Your task to perform on an android device: turn on the 24-hour format for clock Image 0: 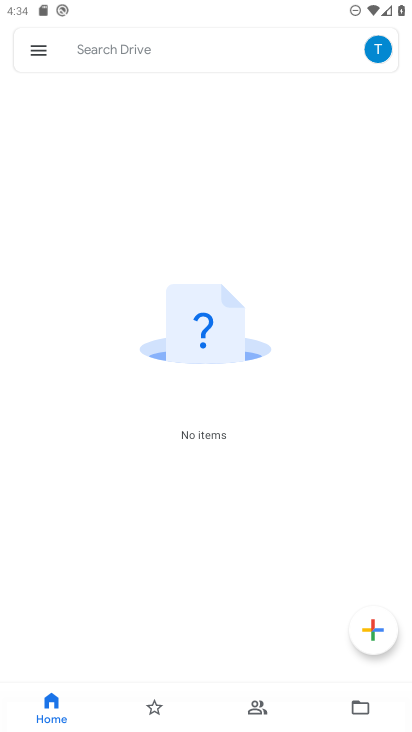
Step 0: press home button
Your task to perform on an android device: turn on the 24-hour format for clock Image 1: 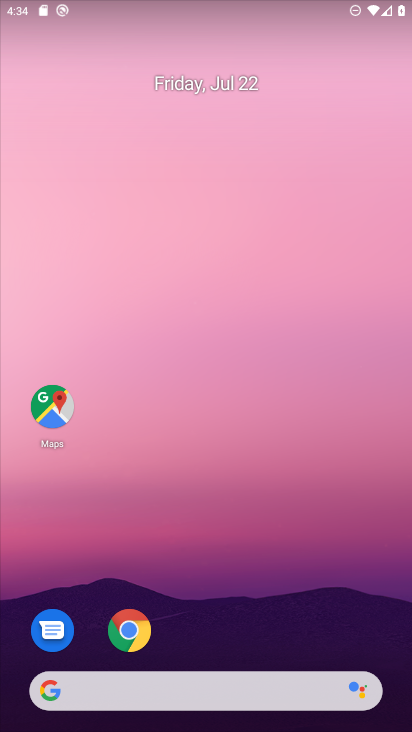
Step 1: drag from (229, 621) to (274, 109)
Your task to perform on an android device: turn on the 24-hour format for clock Image 2: 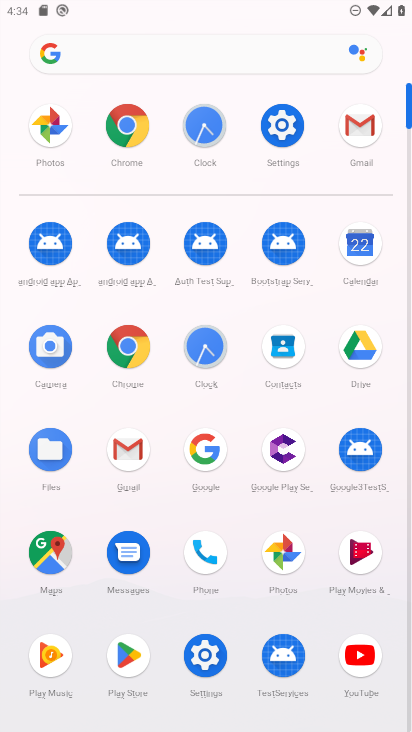
Step 2: click (207, 649)
Your task to perform on an android device: turn on the 24-hour format for clock Image 3: 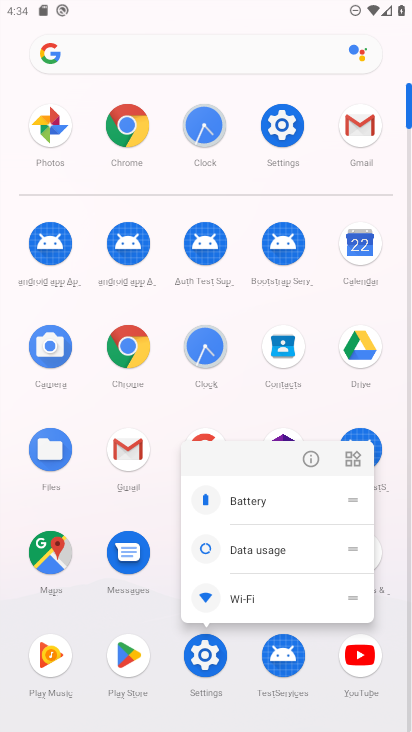
Step 3: click (211, 655)
Your task to perform on an android device: turn on the 24-hour format for clock Image 4: 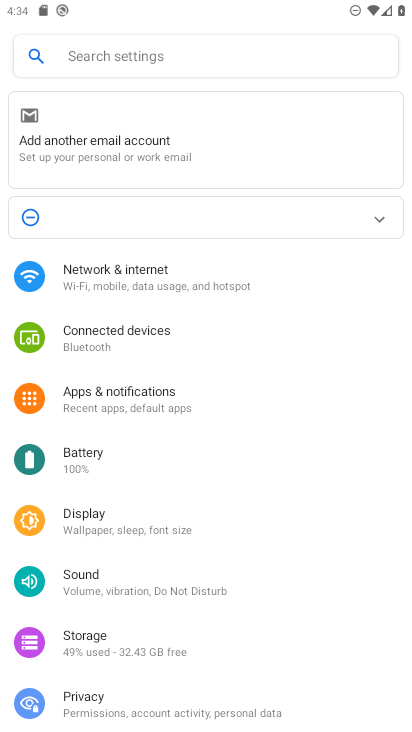
Step 4: drag from (161, 617) to (174, 145)
Your task to perform on an android device: turn on the 24-hour format for clock Image 5: 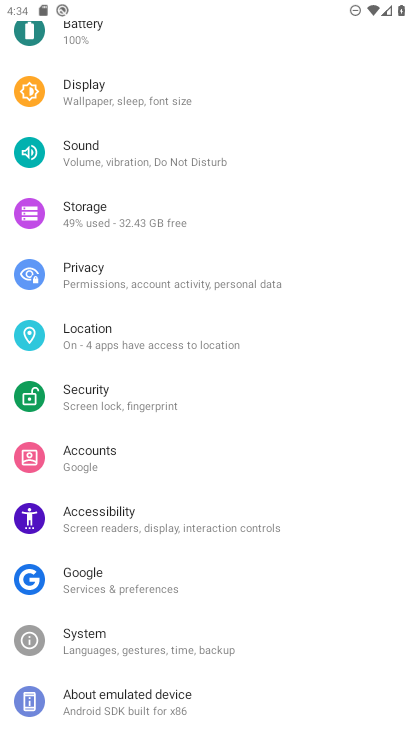
Step 5: click (108, 652)
Your task to perform on an android device: turn on the 24-hour format for clock Image 6: 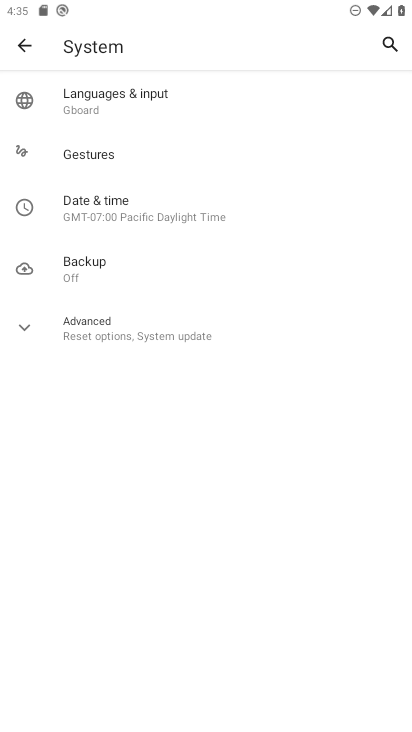
Step 6: click (127, 223)
Your task to perform on an android device: turn on the 24-hour format for clock Image 7: 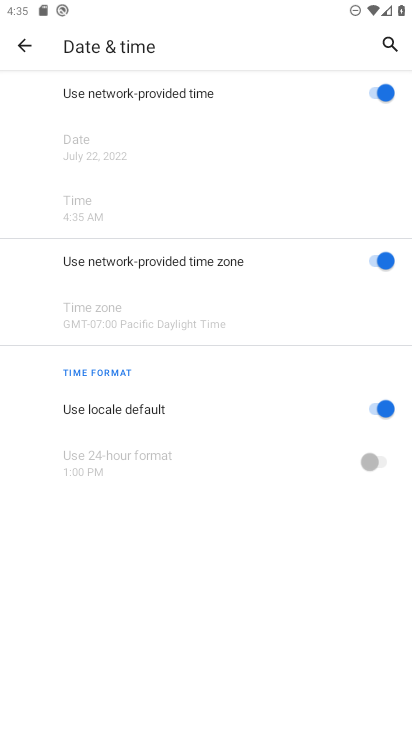
Step 7: click (353, 405)
Your task to perform on an android device: turn on the 24-hour format for clock Image 8: 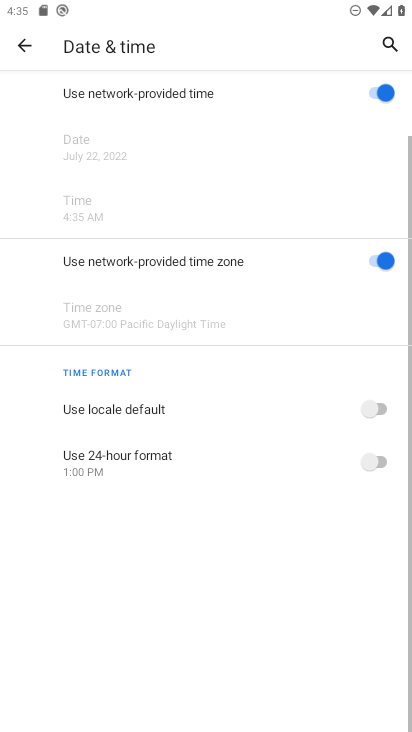
Step 8: click (388, 455)
Your task to perform on an android device: turn on the 24-hour format for clock Image 9: 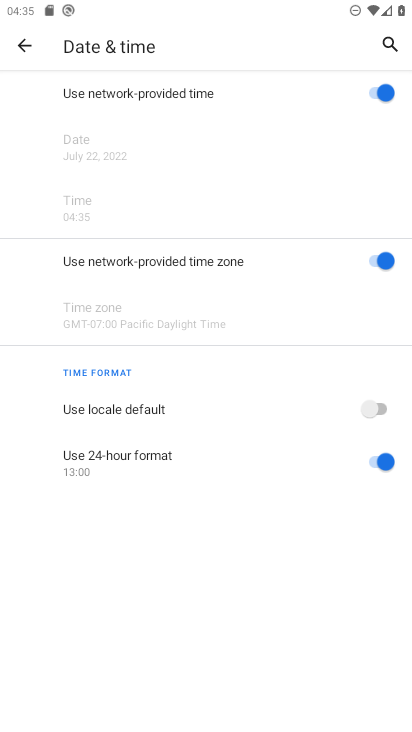
Step 9: task complete